Your task to perform on an android device: Go to wifi settings Image 0: 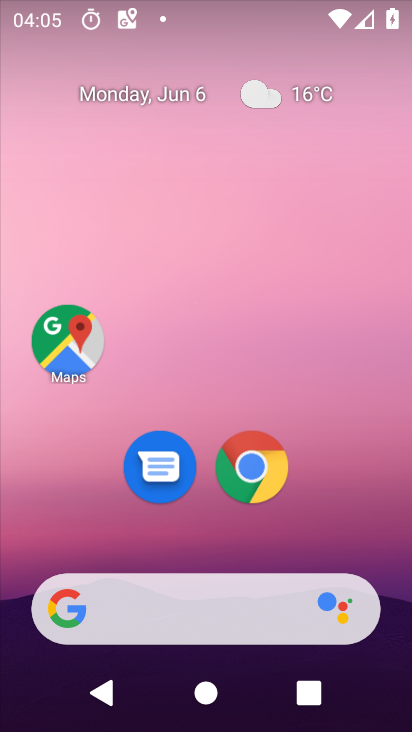
Step 0: press home button
Your task to perform on an android device: Go to wifi settings Image 1: 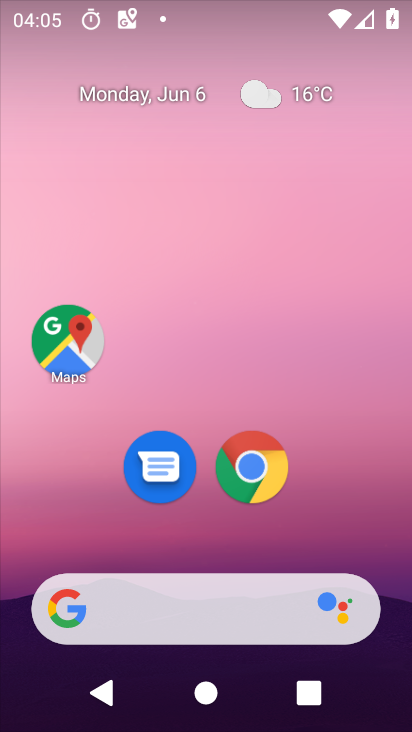
Step 1: drag from (212, 556) to (233, 33)
Your task to perform on an android device: Go to wifi settings Image 2: 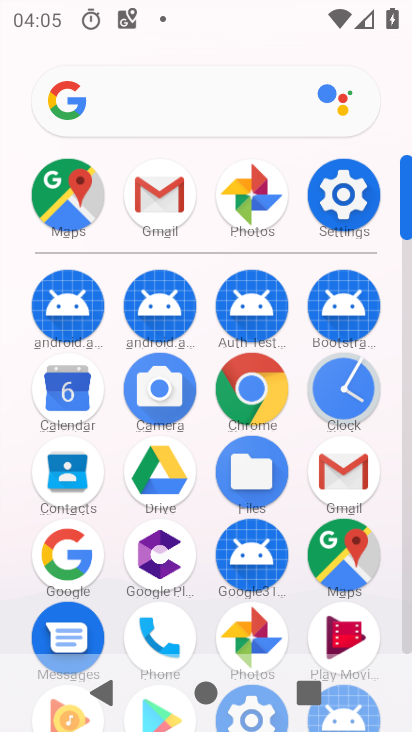
Step 2: click (342, 188)
Your task to perform on an android device: Go to wifi settings Image 3: 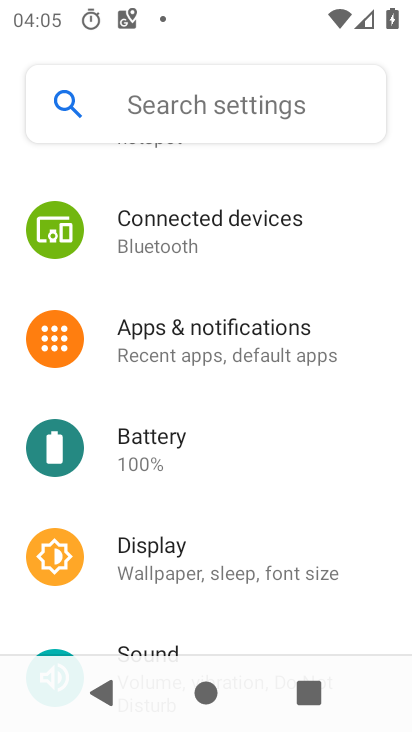
Step 3: drag from (145, 190) to (139, 553)
Your task to perform on an android device: Go to wifi settings Image 4: 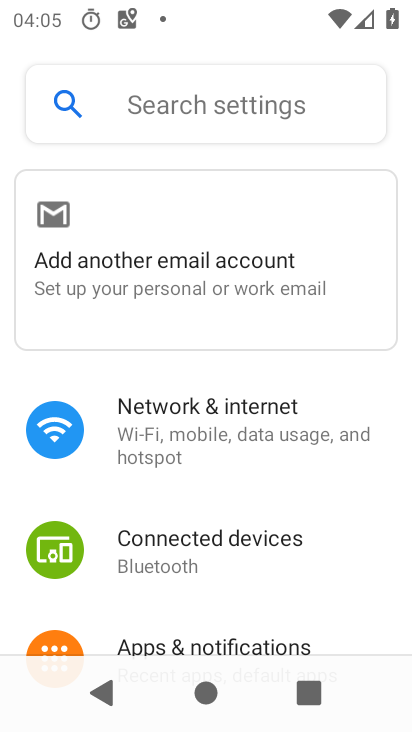
Step 4: click (94, 418)
Your task to perform on an android device: Go to wifi settings Image 5: 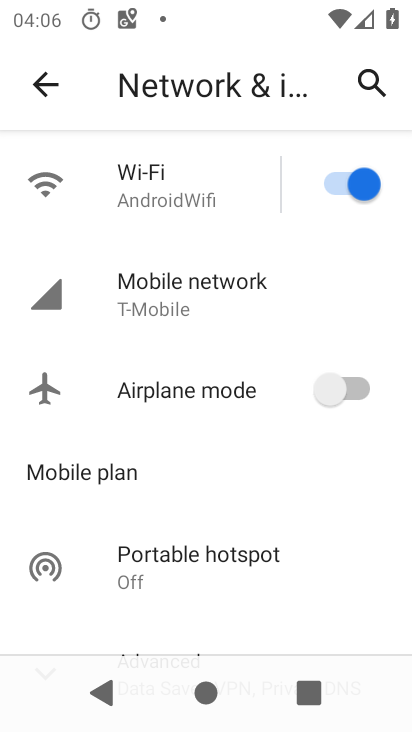
Step 5: click (217, 173)
Your task to perform on an android device: Go to wifi settings Image 6: 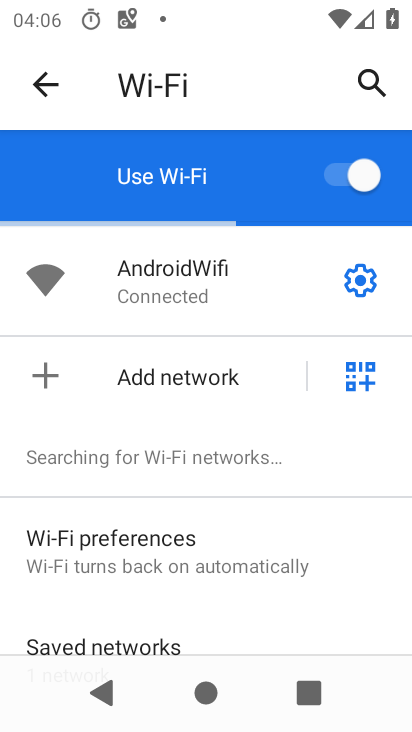
Step 6: task complete